Your task to perform on an android device: empty trash in google photos Image 0: 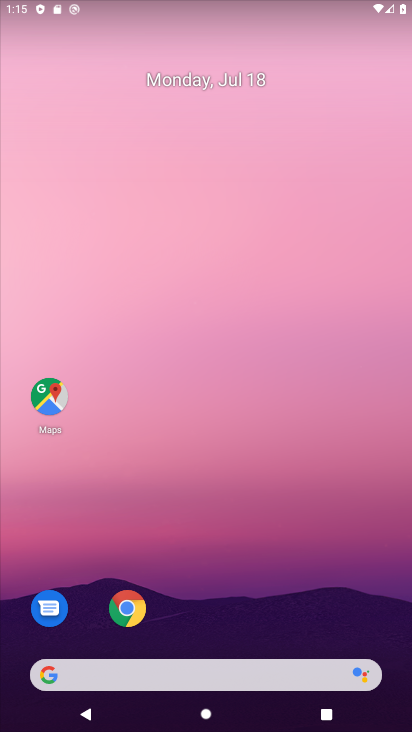
Step 0: drag from (298, 599) to (235, 73)
Your task to perform on an android device: empty trash in google photos Image 1: 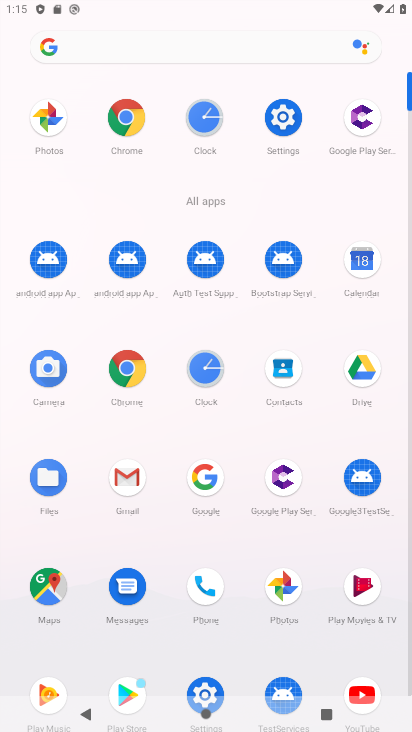
Step 1: click (288, 594)
Your task to perform on an android device: empty trash in google photos Image 2: 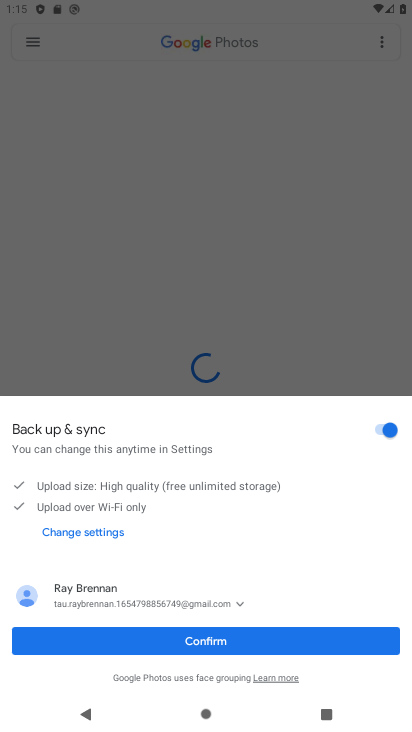
Step 2: click (219, 644)
Your task to perform on an android device: empty trash in google photos Image 3: 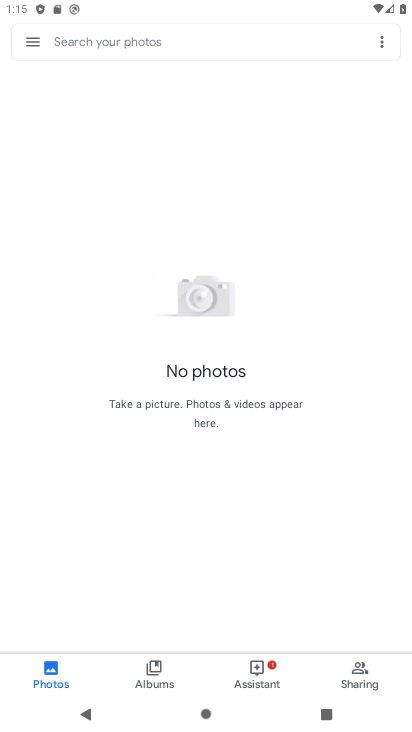
Step 3: click (32, 38)
Your task to perform on an android device: empty trash in google photos Image 4: 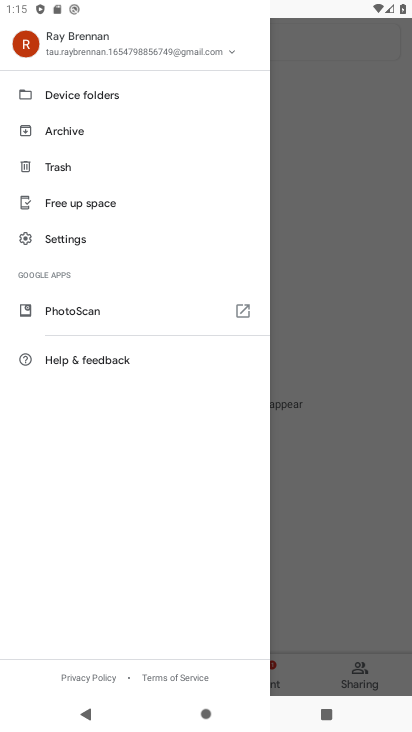
Step 4: click (37, 167)
Your task to perform on an android device: empty trash in google photos Image 5: 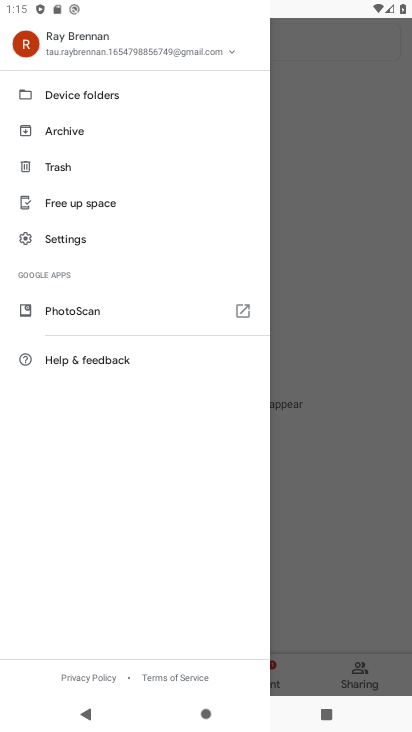
Step 5: click (58, 165)
Your task to perform on an android device: empty trash in google photos Image 6: 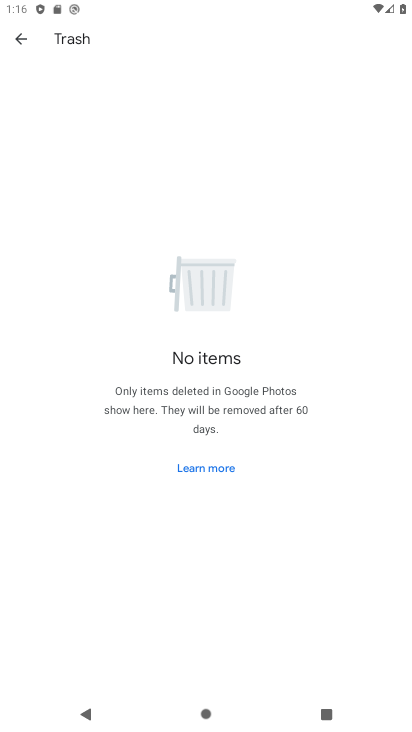
Step 6: task complete